Your task to perform on an android device: Open calendar and show me the first week of next month Image 0: 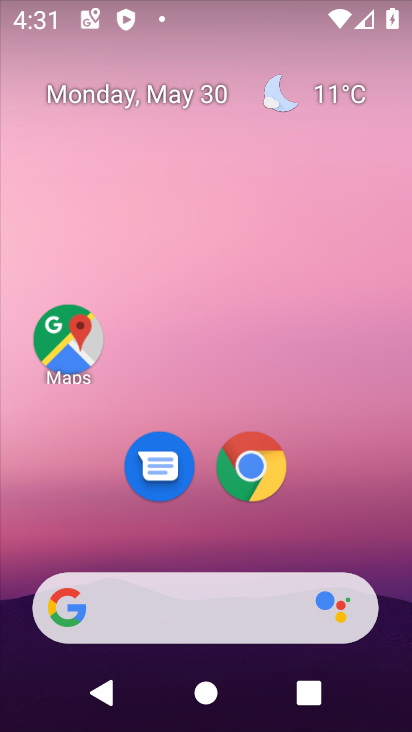
Step 0: drag from (344, 480) to (330, 108)
Your task to perform on an android device: Open calendar and show me the first week of next month Image 1: 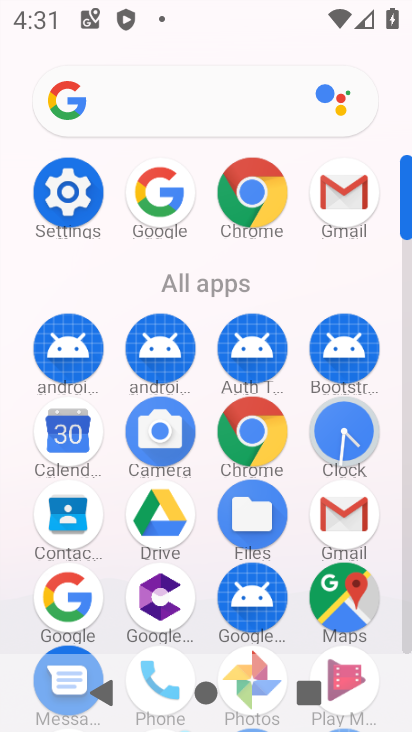
Step 1: click (81, 425)
Your task to perform on an android device: Open calendar and show me the first week of next month Image 2: 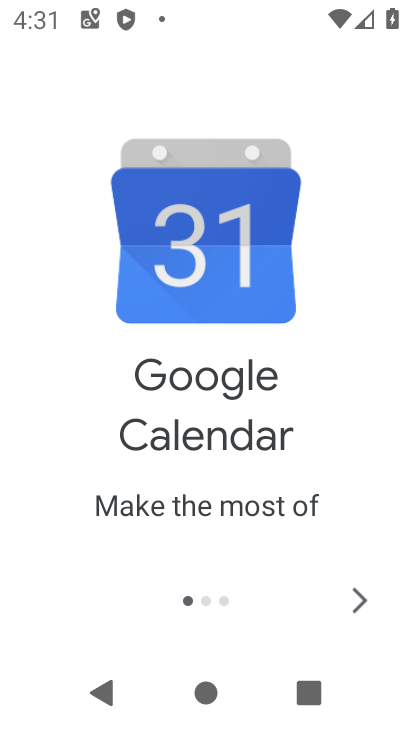
Step 2: click (348, 587)
Your task to perform on an android device: Open calendar and show me the first week of next month Image 3: 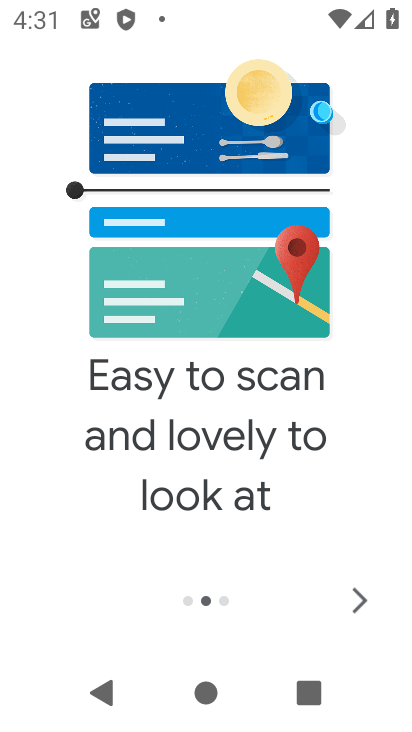
Step 3: click (349, 580)
Your task to perform on an android device: Open calendar and show me the first week of next month Image 4: 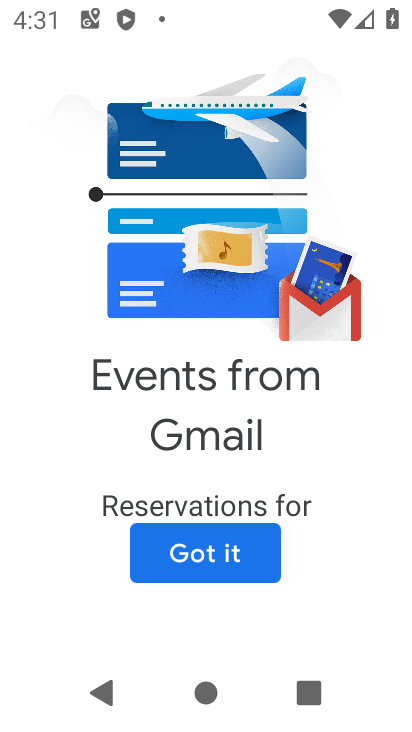
Step 4: click (205, 554)
Your task to perform on an android device: Open calendar and show me the first week of next month Image 5: 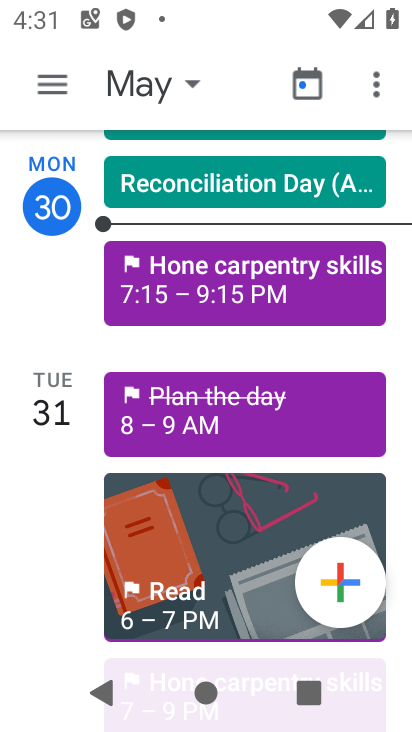
Step 5: click (146, 73)
Your task to perform on an android device: Open calendar and show me the first week of next month Image 6: 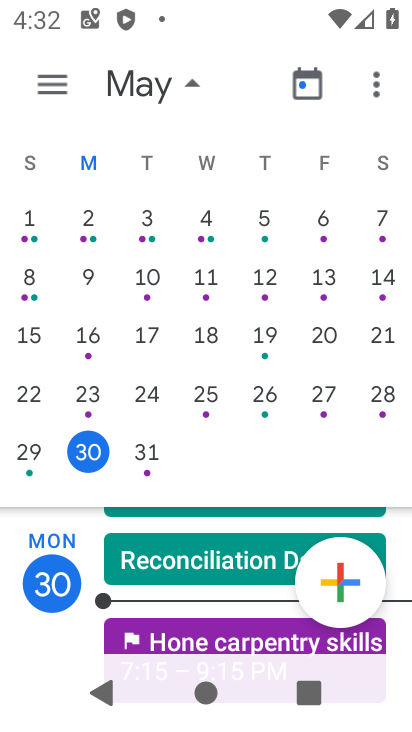
Step 6: drag from (346, 316) to (30, 323)
Your task to perform on an android device: Open calendar and show me the first week of next month Image 7: 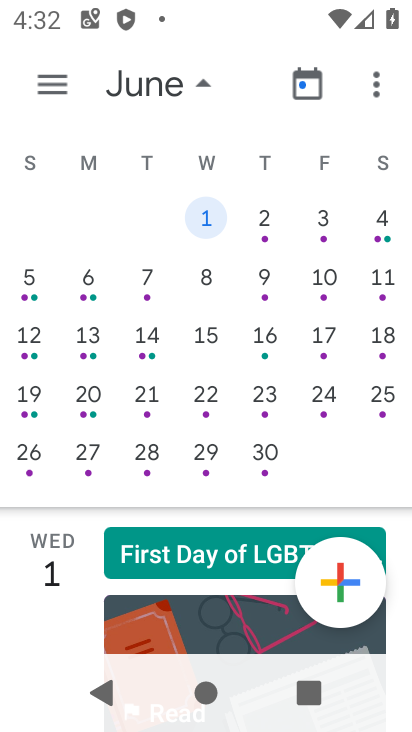
Step 7: click (26, 286)
Your task to perform on an android device: Open calendar and show me the first week of next month Image 8: 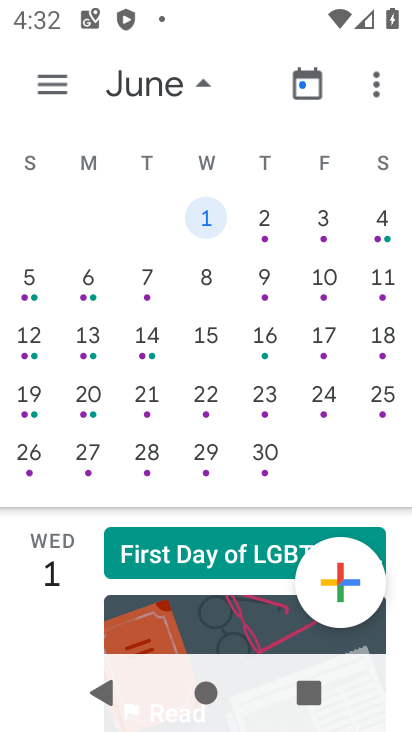
Step 8: click (31, 279)
Your task to perform on an android device: Open calendar and show me the first week of next month Image 9: 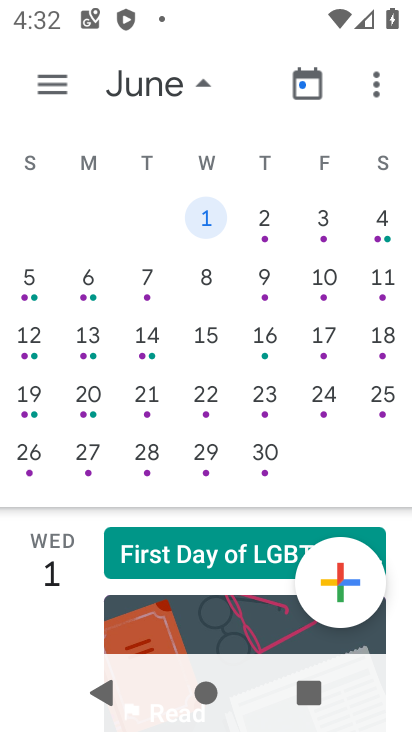
Step 9: click (36, 275)
Your task to perform on an android device: Open calendar and show me the first week of next month Image 10: 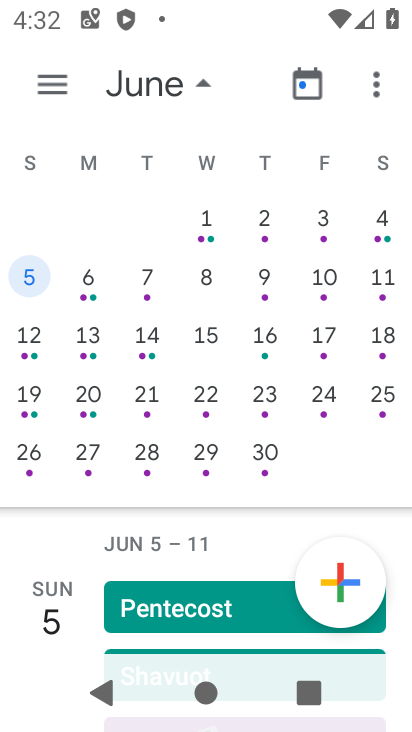
Step 10: click (60, 84)
Your task to perform on an android device: Open calendar and show me the first week of next month Image 11: 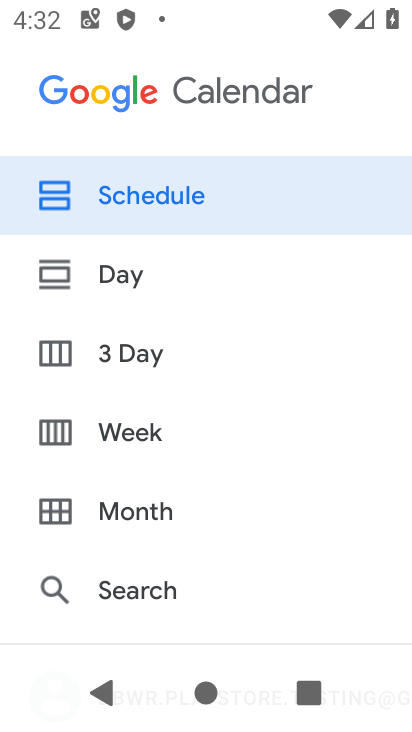
Step 11: click (132, 423)
Your task to perform on an android device: Open calendar and show me the first week of next month Image 12: 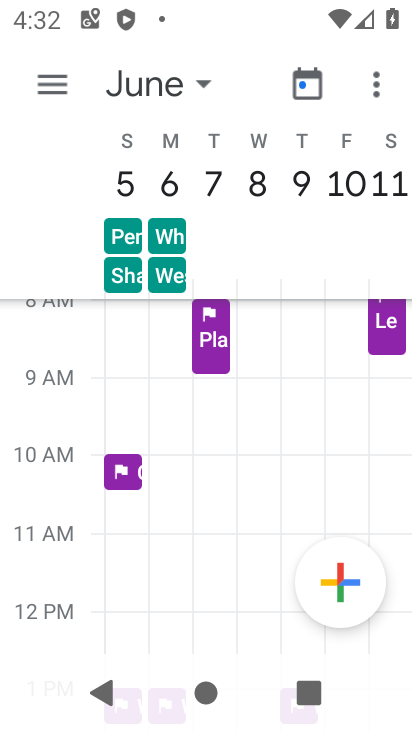
Step 12: task complete